Your task to perform on an android device: turn on notifications settings in the gmail app Image 0: 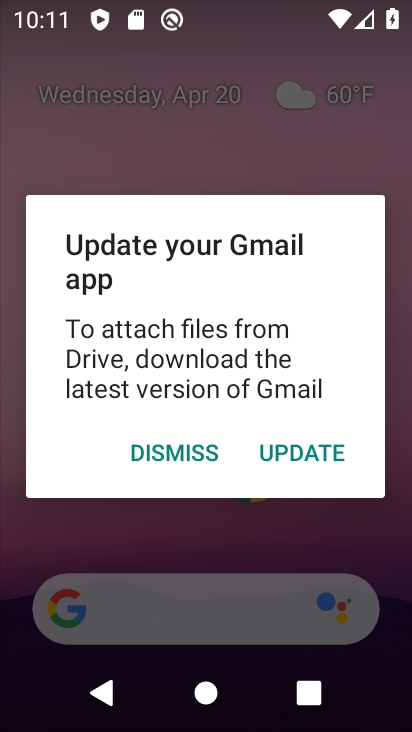
Step 0: press home button
Your task to perform on an android device: turn on notifications settings in the gmail app Image 1: 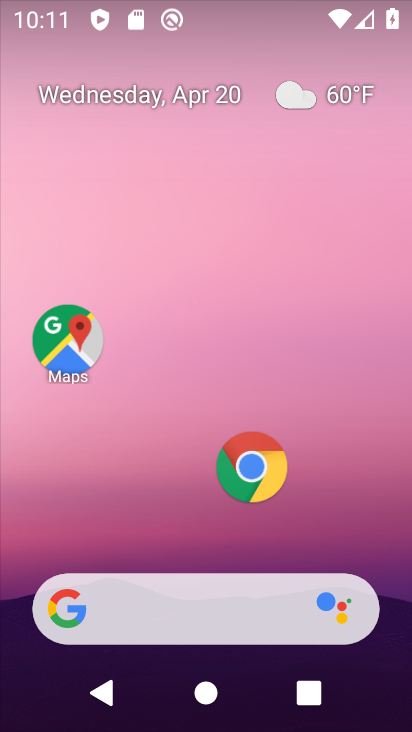
Step 1: drag from (305, 449) to (286, 67)
Your task to perform on an android device: turn on notifications settings in the gmail app Image 2: 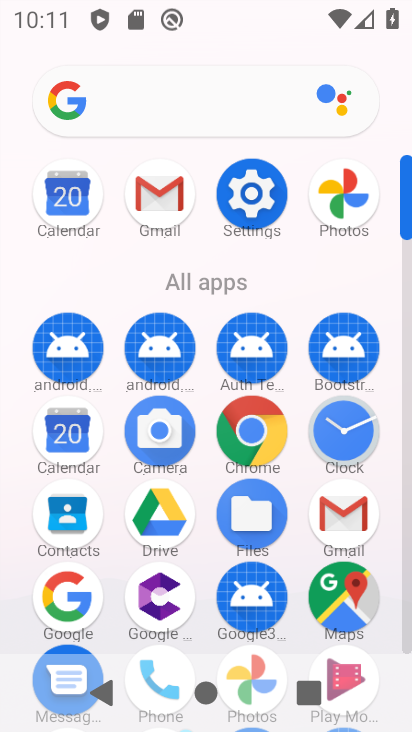
Step 2: click (161, 198)
Your task to perform on an android device: turn on notifications settings in the gmail app Image 3: 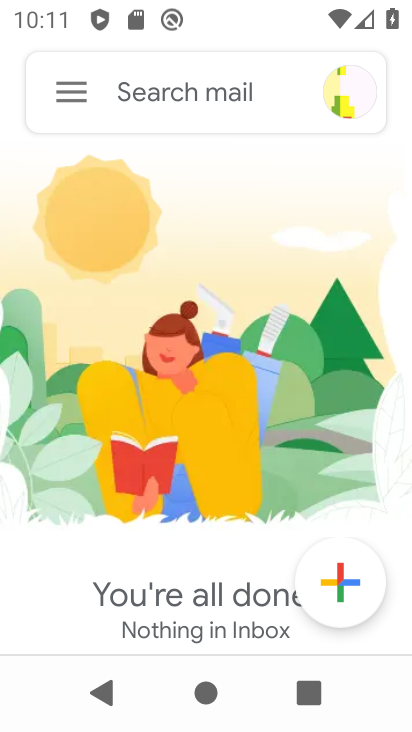
Step 3: click (66, 90)
Your task to perform on an android device: turn on notifications settings in the gmail app Image 4: 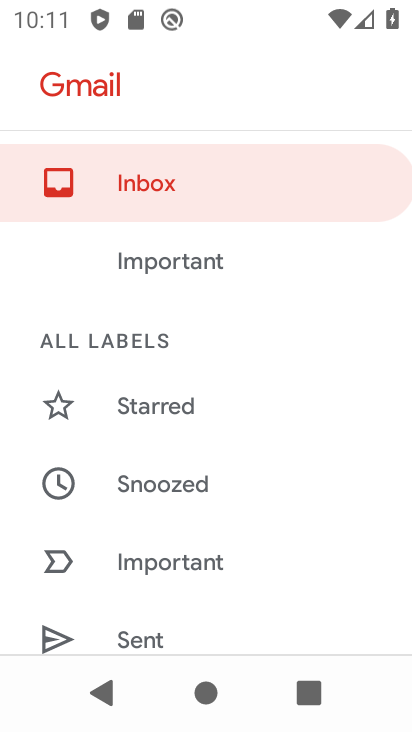
Step 4: drag from (145, 464) to (120, 340)
Your task to perform on an android device: turn on notifications settings in the gmail app Image 5: 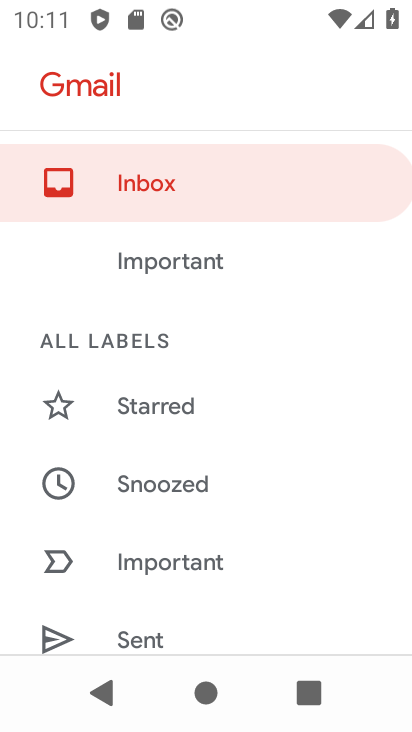
Step 5: drag from (134, 440) to (125, 351)
Your task to perform on an android device: turn on notifications settings in the gmail app Image 6: 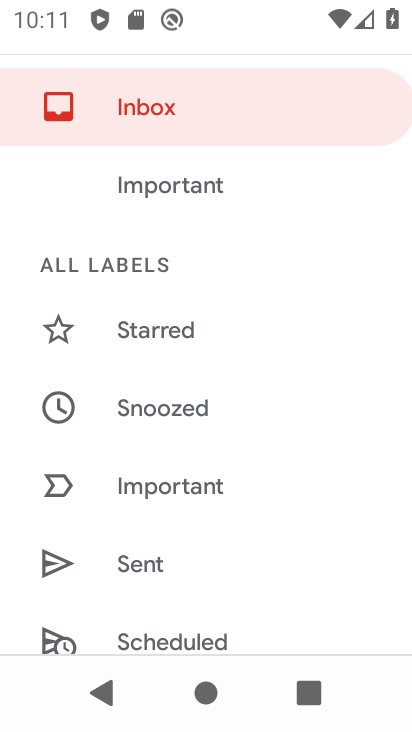
Step 6: drag from (147, 489) to (162, 288)
Your task to perform on an android device: turn on notifications settings in the gmail app Image 7: 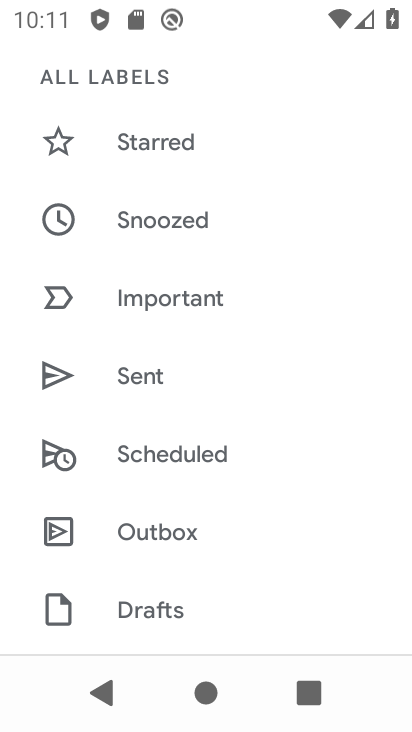
Step 7: drag from (199, 419) to (210, 338)
Your task to perform on an android device: turn on notifications settings in the gmail app Image 8: 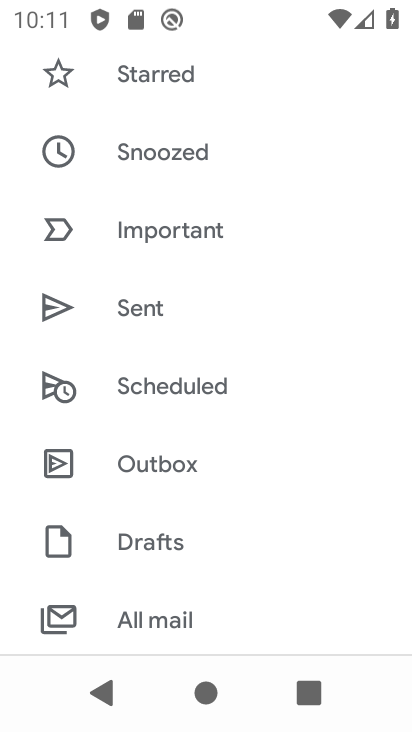
Step 8: drag from (215, 428) to (212, 328)
Your task to perform on an android device: turn on notifications settings in the gmail app Image 9: 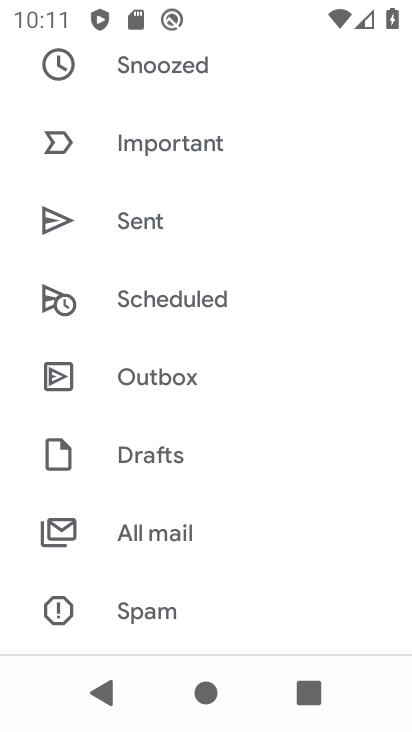
Step 9: drag from (222, 405) to (224, 321)
Your task to perform on an android device: turn on notifications settings in the gmail app Image 10: 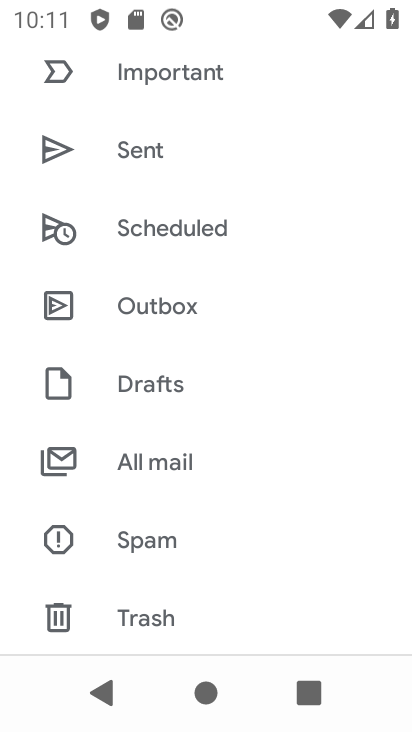
Step 10: drag from (227, 461) to (227, 328)
Your task to perform on an android device: turn on notifications settings in the gmail app Image 11: 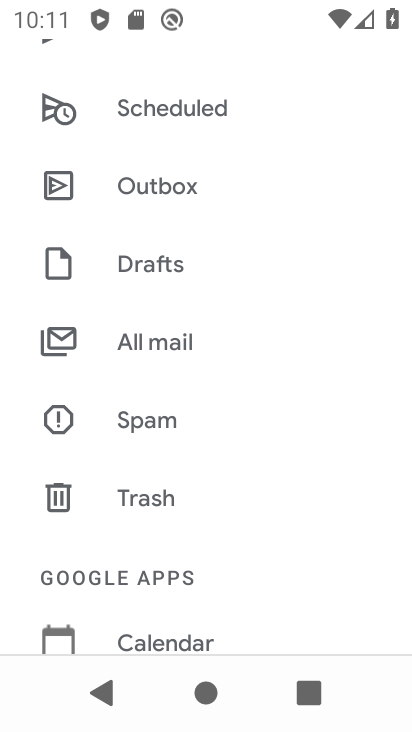
Step 11: drag from (212, 401) to (218, 317)
Your task to perform on an android device: turn on notifications settings in the gmail app Image 12: 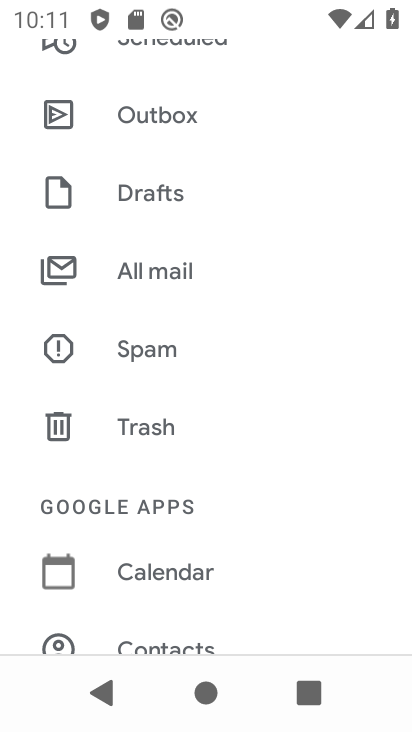
Step 12: drag from (195, 415) to (193, 341)
Your task to perform on an android device: turn on notifications settings in the gmail app Image 13: 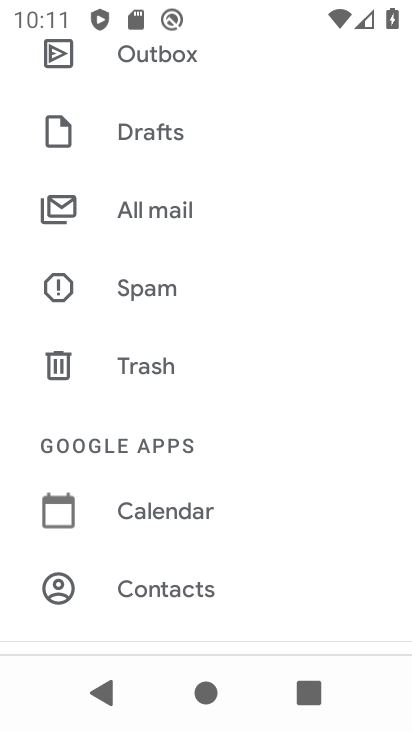
Step 13: drag from (182, 462) to (190, 359)
Your task to perform on an android device: turn on notifications settings in the gmail app Image 14: 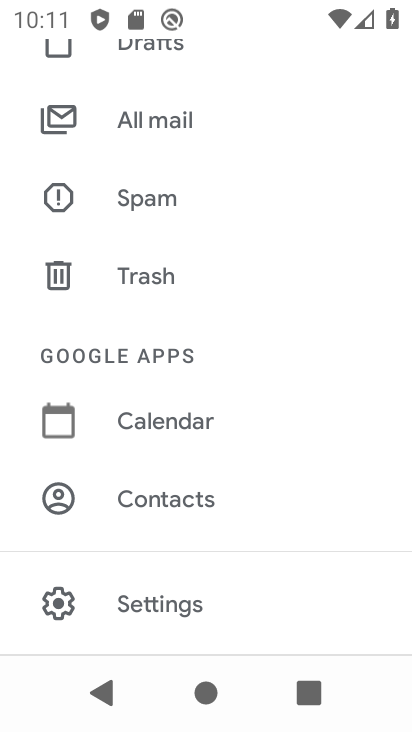
Step 14: drag from (192, 427) to (185, 333)
Your task to perform on an android device: turn on notifications settings in the gmail app Image 15: 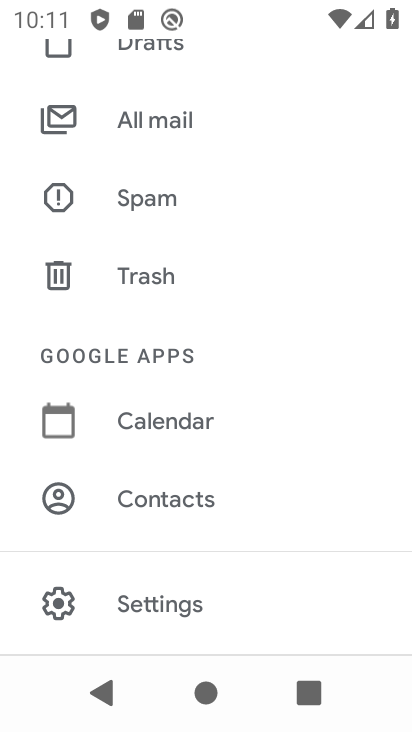
Step 15: click (142, 598)
Your task to perform on an android device: turn on notifications settings in the gmail app Image 16: 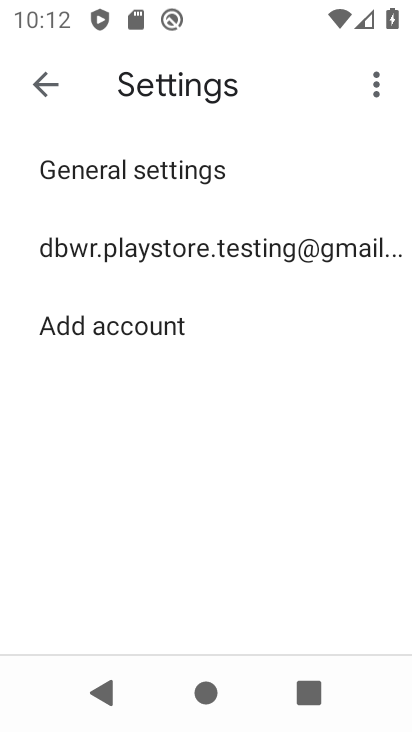
Step 16: click (204, 249)
Your task to perform on an android device: turn on notifications settings in the gmail app Image 17: 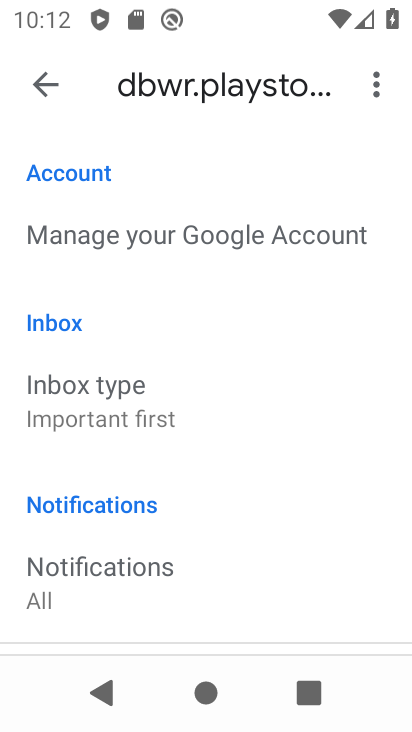
Step 17: drag from (186, 446) to (191, 330)
Your task to perform on an android device: turn on notifications settings in the gmail app Image 18: 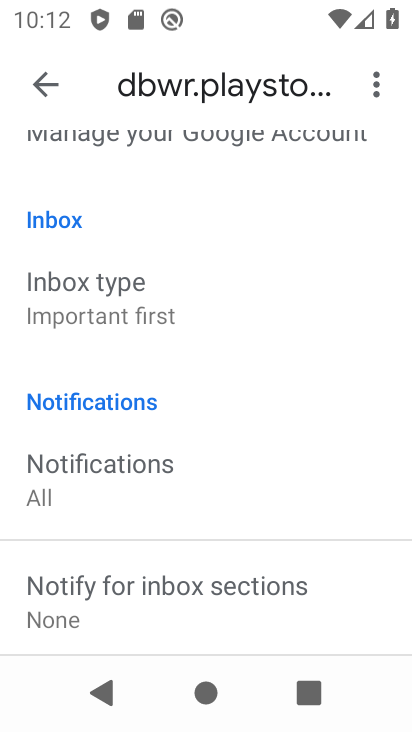
Step 18: drag from (188, 487) to (186, 324)
Your task to perform on an android device: turn on notifications settings in the gmail app Image 19: 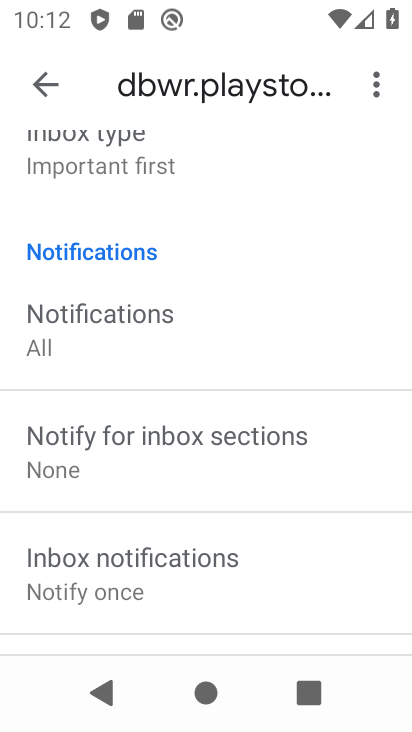
Step 19: drag from (196, 421) to (189, 314)
Your task to perform on an android device: turn on notifications settings in the gmail app Image 20: 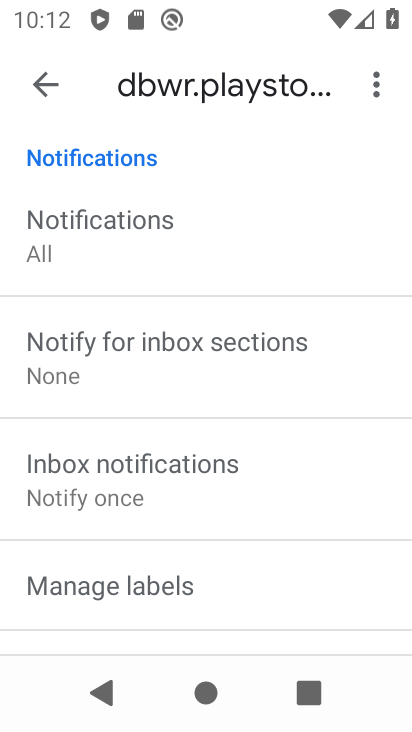
Step 20: drag from (172, 446) to (189, 326)
Your task to perform on an android device: turn on notifications settings in the gmail app Image 21: 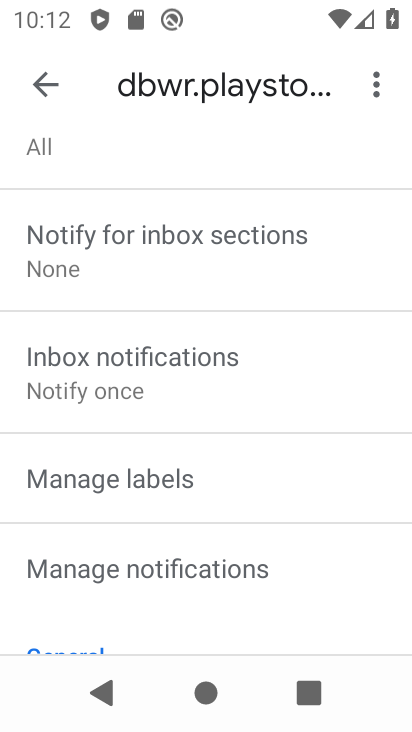
Step 21: click (179, 564)
Your task to perform on an android device: turn on notifications settings in the gmail app Image 22: 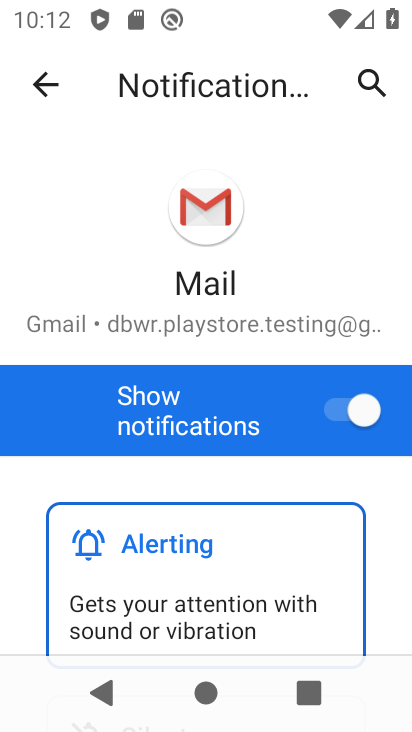
Step 22: task complete